Your task to perform on an android device: check data usage Image 0: 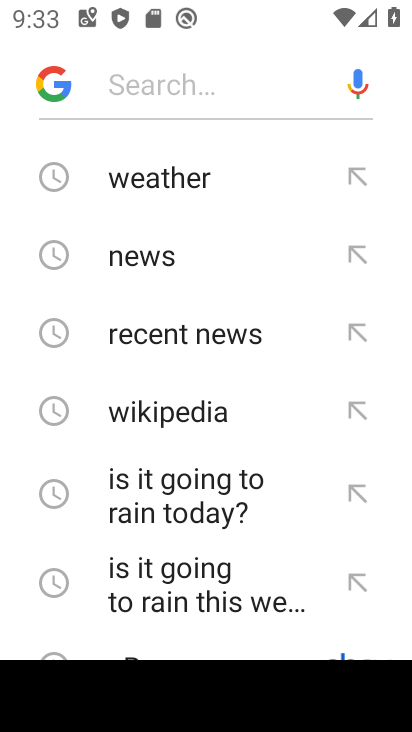
Step 0: press back button
Your task to perform on an android device: check data usage Image 1: 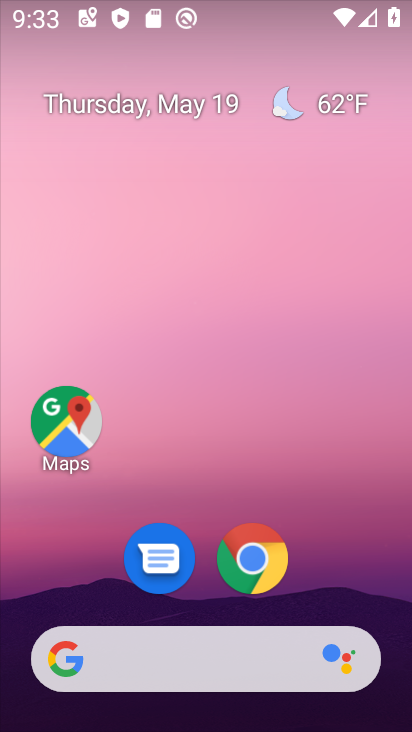
Step 1: drag from (324, 588) to (201, 173)
Your task to perform on an android device: check data usage Image 2: 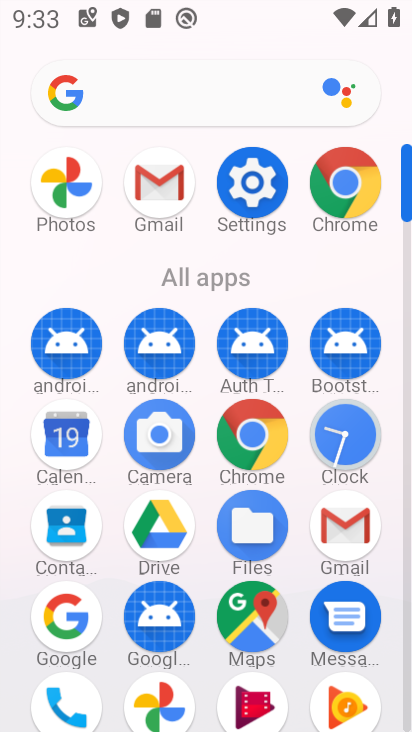
Step 2: click (250, 178)
Your task to perform on an android device: check data usage Image 3: 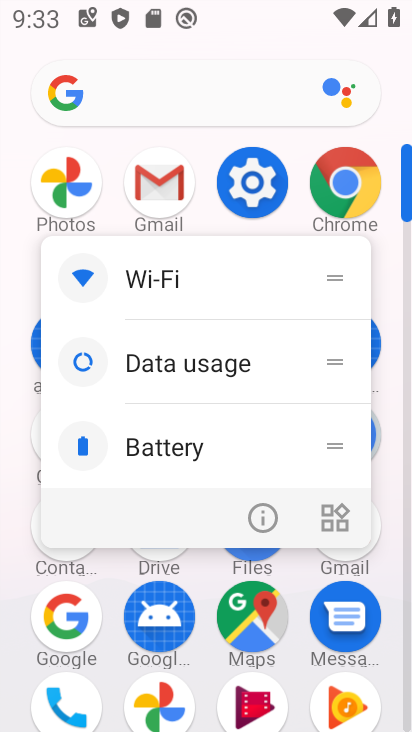
Step 3: click (179, 364)
Your task to perform on an android device: check data usage Image 4: 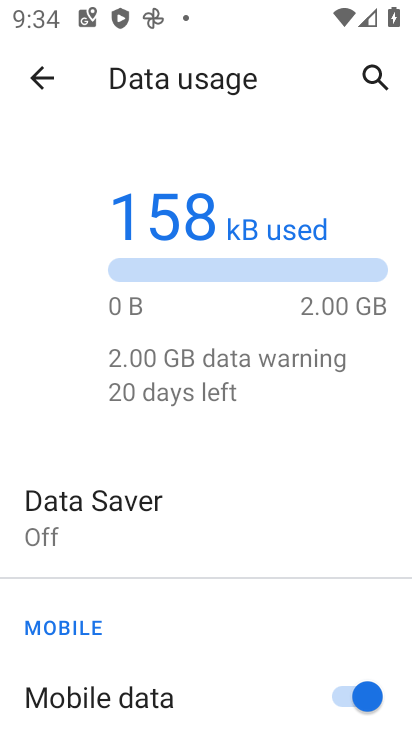
Step 4: task complete